Your task to perform on an android device: Go to sound settings Image 0: 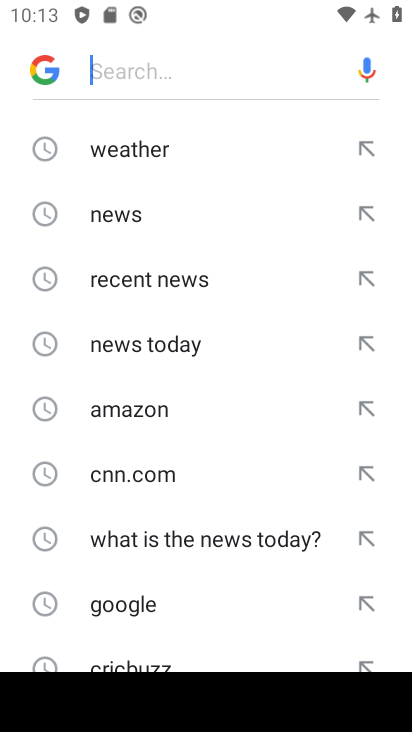
Step 0: press home button
Your task to perform on an android device: Go to sound settings Image 1: 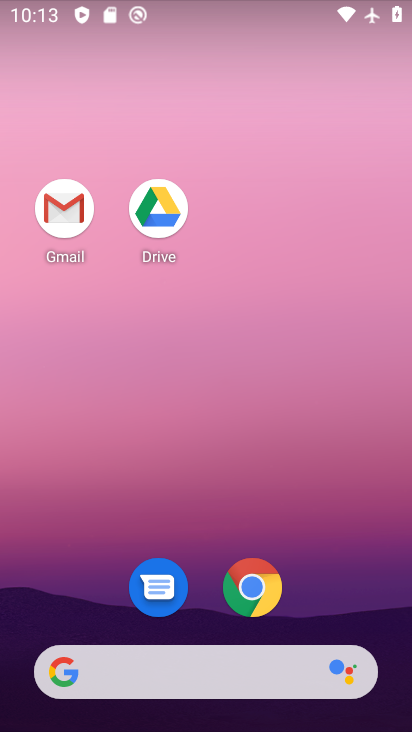
Step 1: drag from (317, 513) to (333, 96)
Your task to perform on an android device: Go to sound settings Image 2: 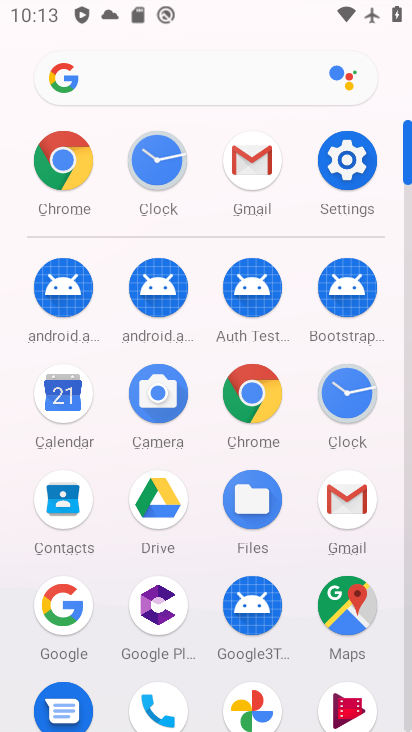
Step 2: click (343, 157)
Your task to perform on an android device: Go to sound settings Image 3: 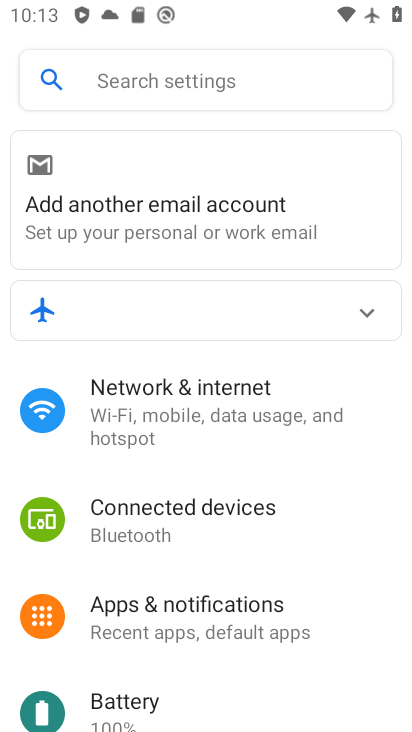
Step 3: drag from (352, 608) to (372, 375)
Your task to perform on an android device: Go to sound settings Image 4: 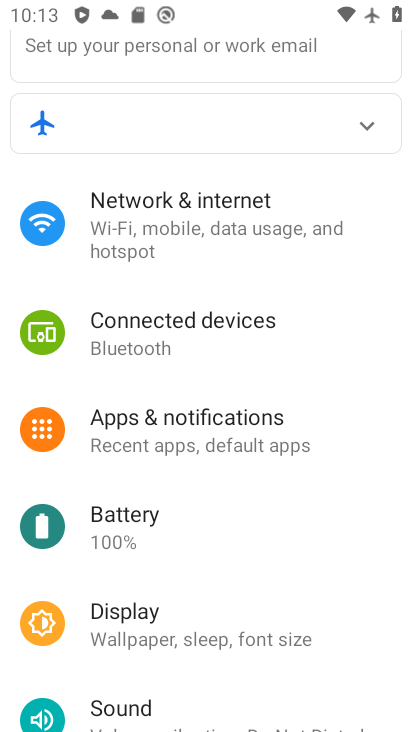
Step 4: drag from (350, 499) to (369, 287)
Your task to perform on an android device: Go to sound settings Image 5: 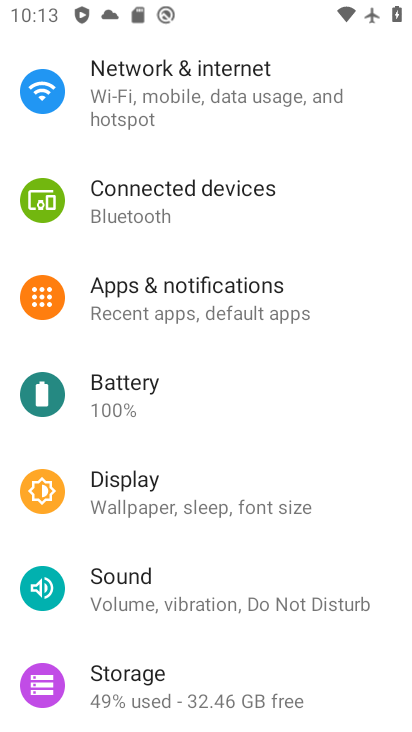
Step 5: drag from (349, 550) to (360, 291)
Your task to perform on an android device: Go to sound settings Image 6: 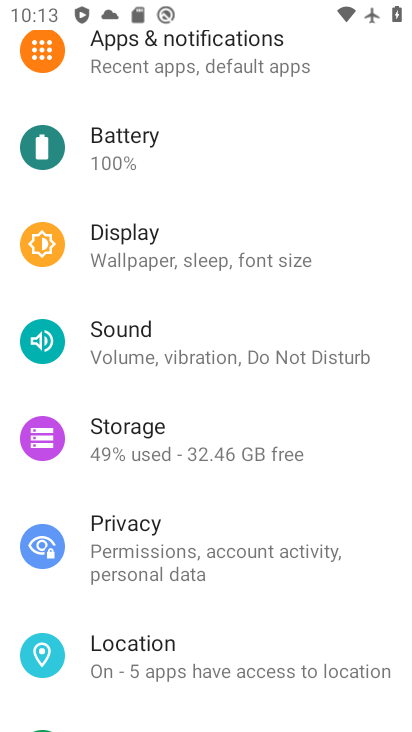
Step 6: click (229, 348)
Your task to perform on an android device: Go to sound settings Image 7: 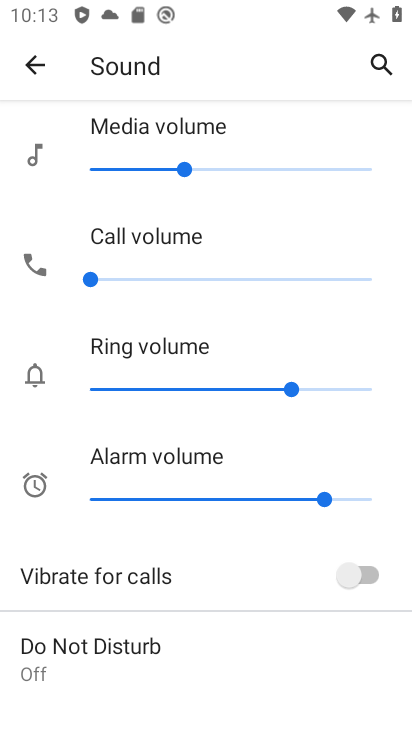
Step 7: task complete